Your task to perform on an android device: Open Reddit.com Image 0: 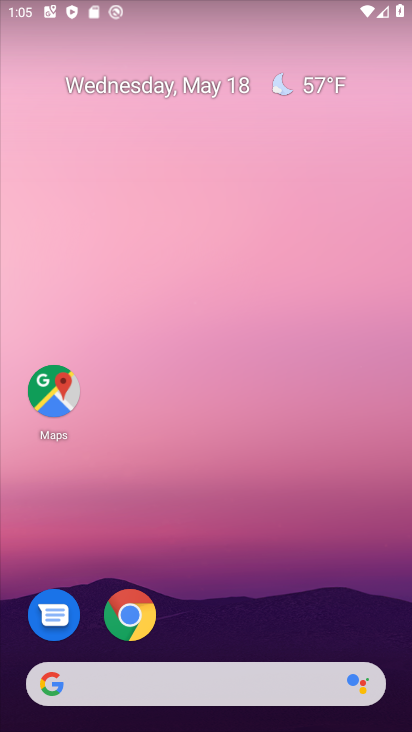
Step 0: drag from (383, 641) to (228, 57)
Your task to perform on an android device: Open Reddit.com Image 1: 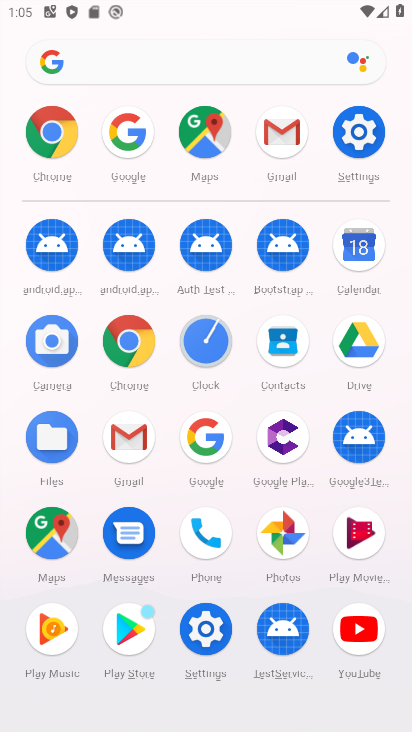
Step 1: click (218, 446)
Your task to perform on an android device: Open Reddit.com Image 2: 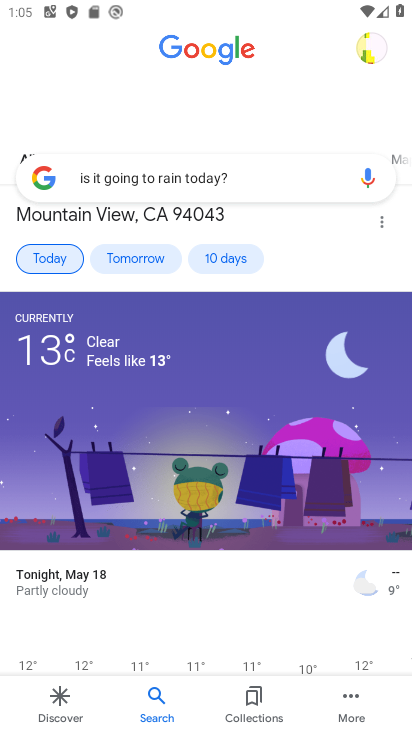
Step 2: press back button
Your task to perform on an android device: Open Reddit.com Image 3: 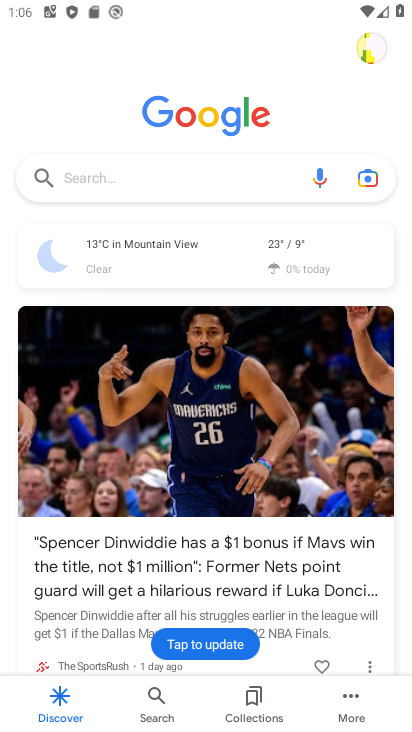
Step 3: click (177, 169)
Your task to perform on an android device: Open Reddit.com Image 4: 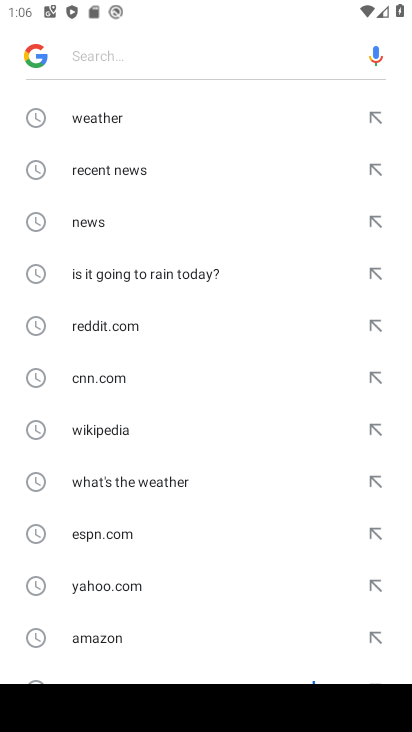
Step 4: click (128, 318)
Your task to perform on an android device: Open Reddit.com Image 5: 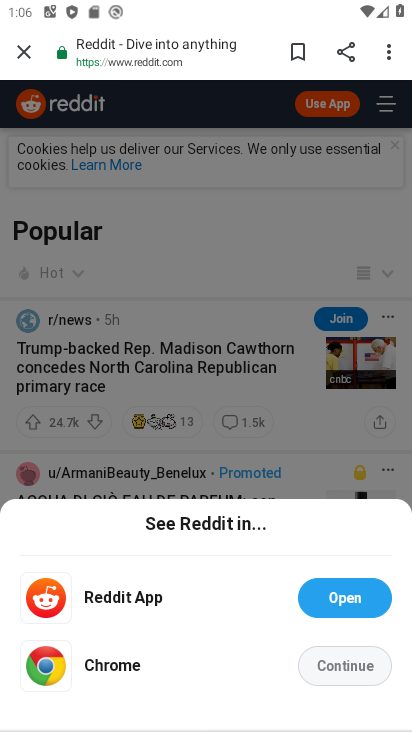
Step 5: task complete